Your task to perform on an android device: Go to calendar. Show me events next week Image 0: 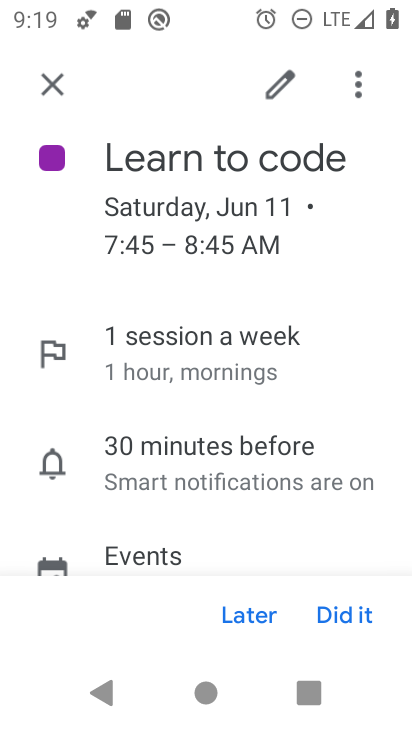
Step 0: press home button
Your task to perform on an android device: Go to calendar. Show me events next week Image 1: 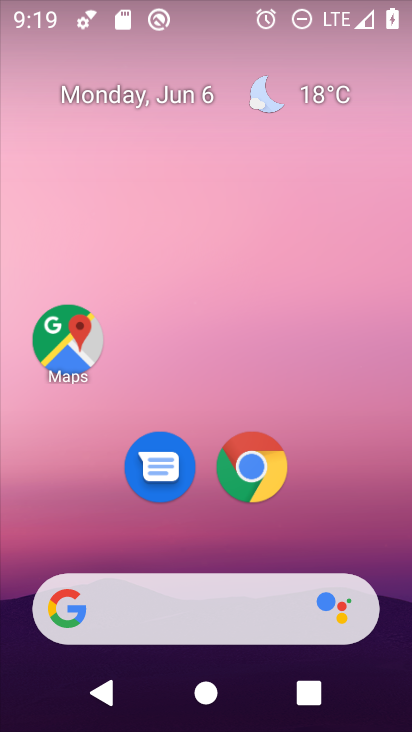
Step 1: drag from (354, 513) to (361, 80)
Your task to perform on an android device: Go to calendar. Show me events next week Image 2: 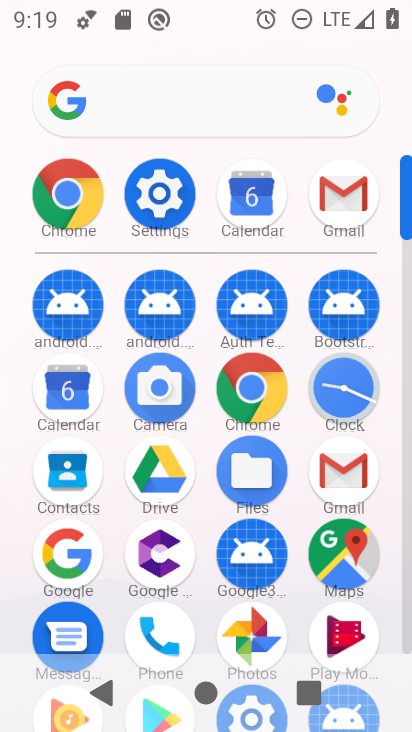
Step 2: click (76, 390)
Your task to perform on an android device: Go to calendar. Show me events next week Image 3: 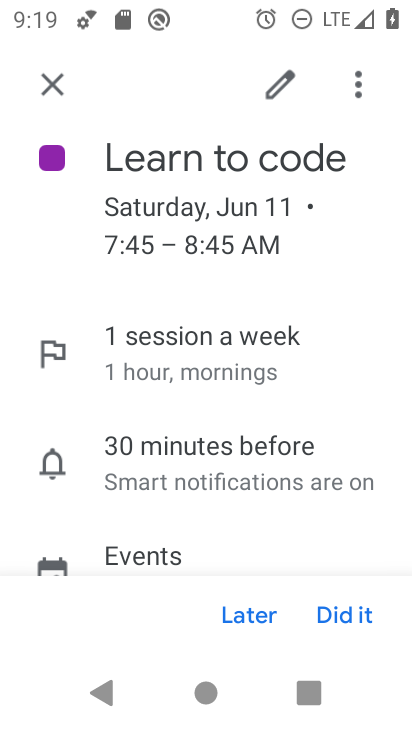
Step 3: click (48, 81)
Your task to perform on an android device: Go to calendar. Show me events next week Image 4: 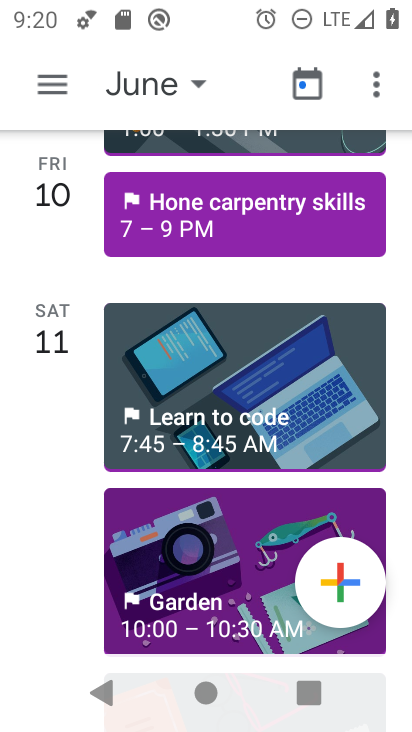
Step 4: click (183, 79)
Your task to perform on an android device: Go to calendar. Show me events next week Image 5: 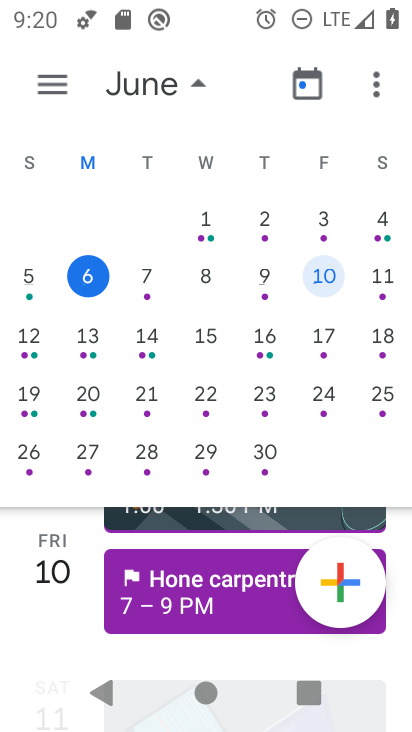
Step 5: click (89, 331)
Your task to perform on an android device: Go to calendar. Show me events next week Image 6: 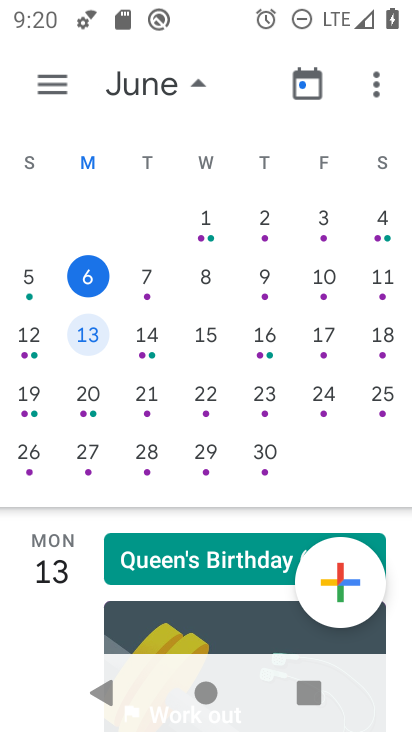
Step 6: task complete